Your task to perform on an android device: Open wifi settings Image 0: 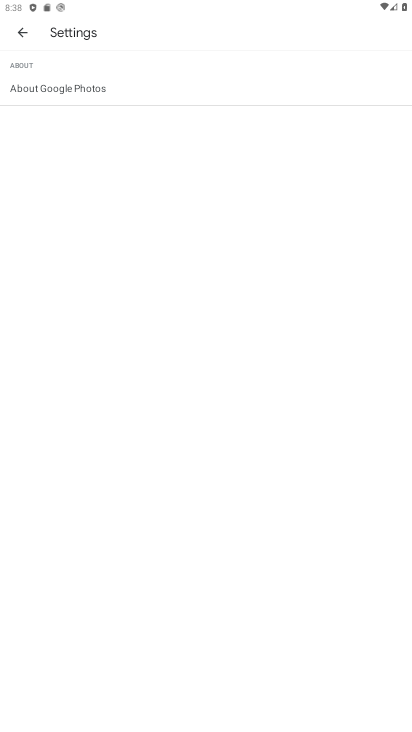
Step 0: press home button
Your task to perform on an android device: Open wifi settings Image 1: 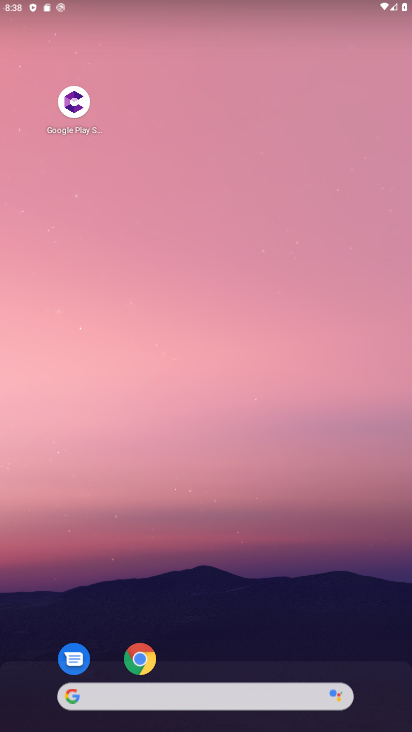
Step 1: drag from (240, 475) to (247, 236)
Your task to perform on an android device: Open wifi settings Image 2: 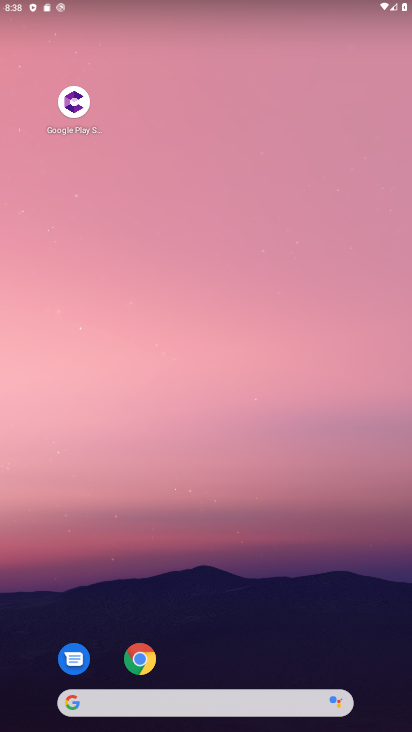
Step 2: drag from (217, 638) to (221, 146)
Your task to perform on an android device: Open wifi settings Image 3: 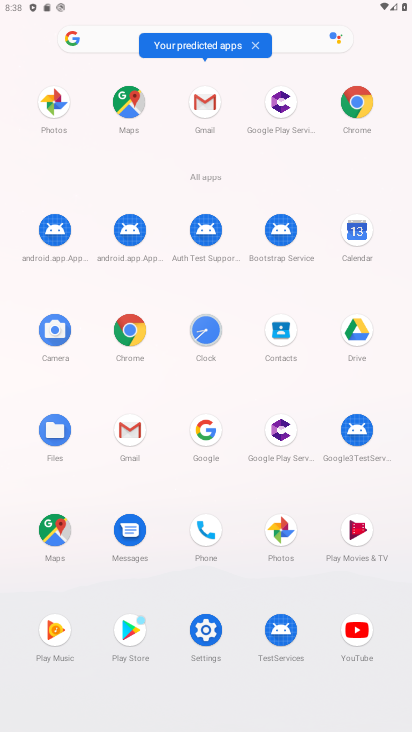
Step 3: click (203, 629)
Your task to perform on an android device: Open wifi settings Image 4: 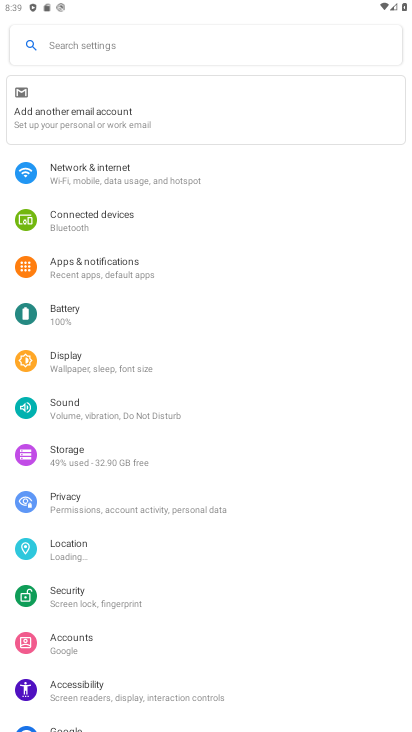
Step 4: click (128, 171)
Your task to perform on an android device: Open wifi settings Image 5: 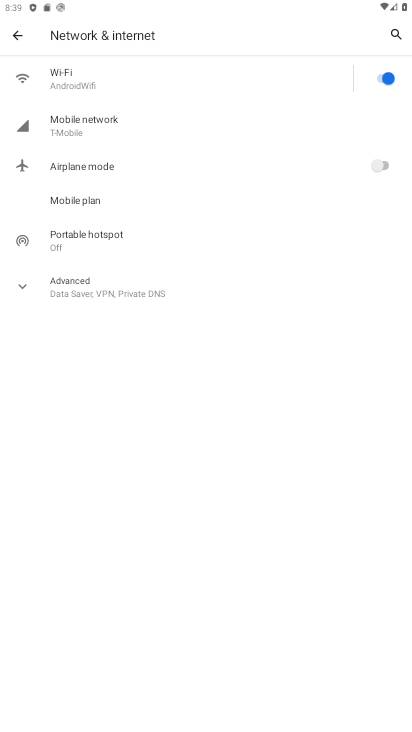
Step 5: click (181, 76)
Your task to perform on an android device: Open wifi settings Image 6: 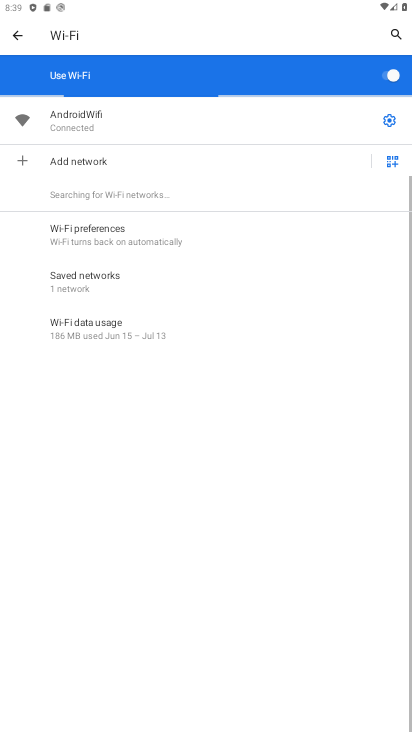
Step 6: click (222, 115)
Your task to perform on an android device: Open wifi settings Image 7: 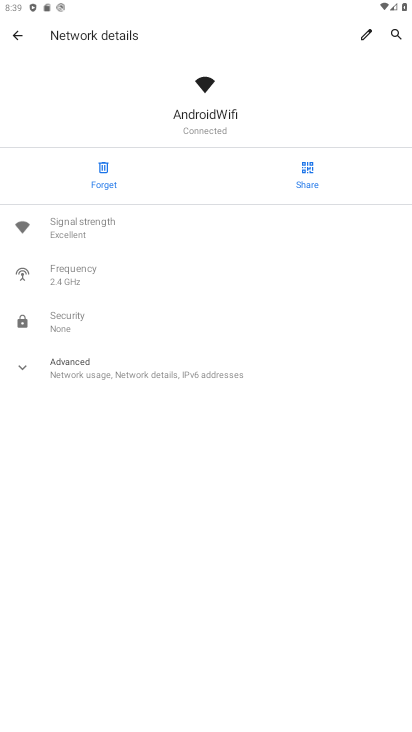
Step 7: task complete